Your task to perform on an android device: Open the stopwatch Image 0: 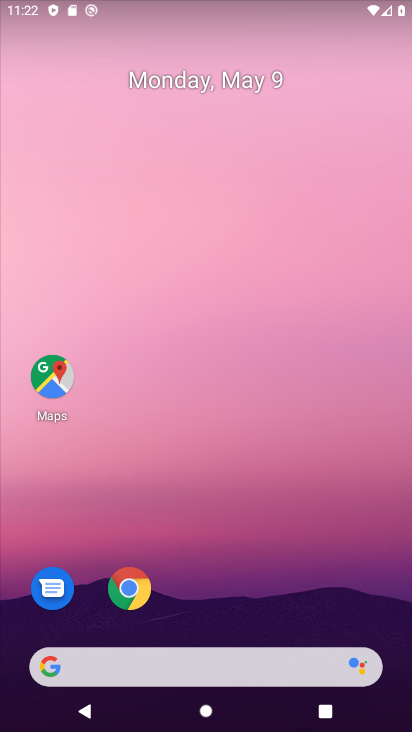
Step 0: drag from (127, 595) to (275, 90)
Your task to perform on an android device: Open the stopwatch Image 1: 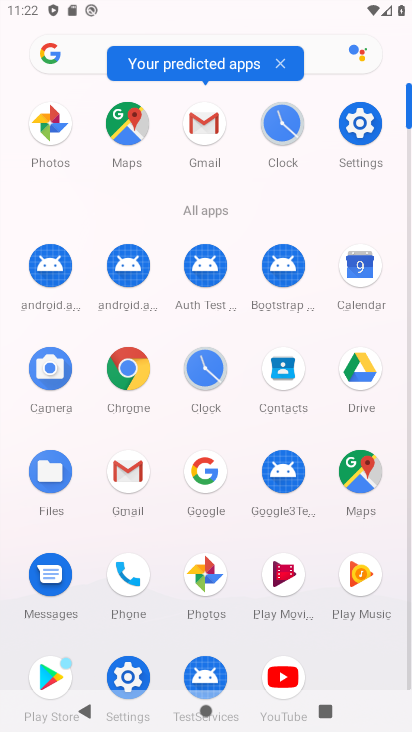
Step 1: click (210, 370)
Your task to perform on an android device: Open the stopwatch Image 2: 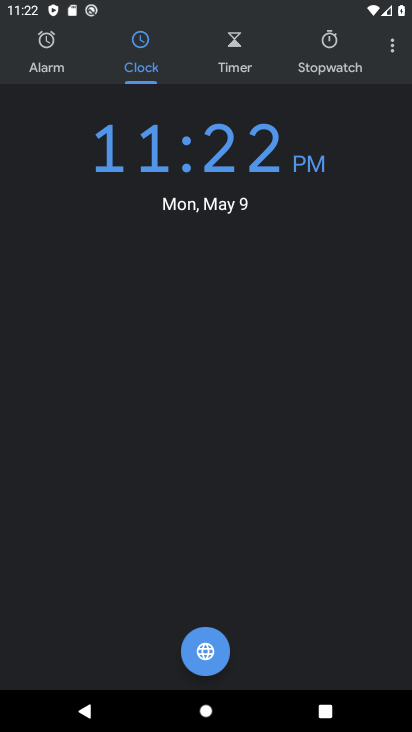
Step 2: click (326, 62)
Your task to perform on an android device: Open the stopwatch Image 3: 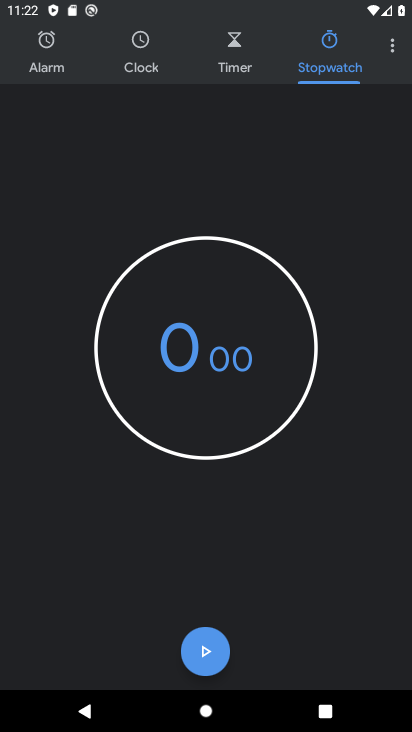
Step 3: task complete